Your task to perform on an android device: open app "NewsBreak: Local News & Alerts" Image 0: 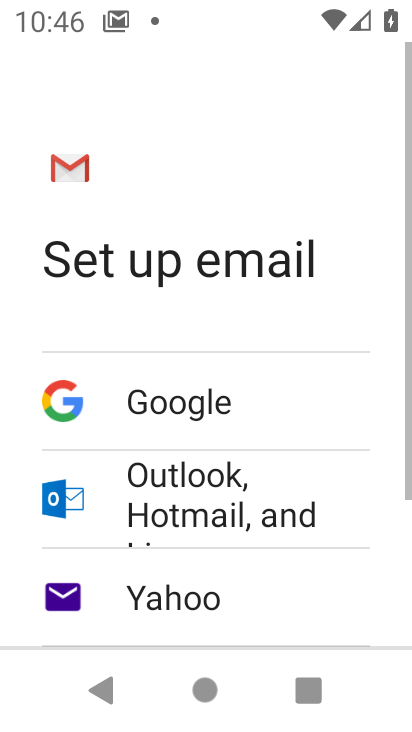
Step 0: press home button
Your task to perform on an android device: open app "NewsBreak: Local News & Alerts" Image 1: 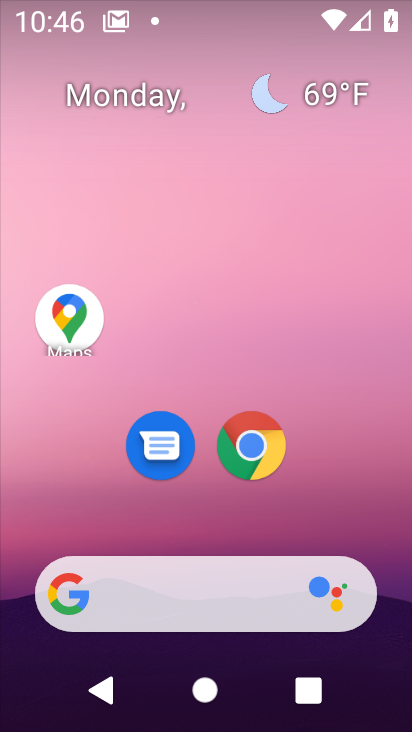
Step 1: drag from (181, 647) to (249, 85)
Your task to perform on an android device: open app "NewsBreak: Local News & Alerts" Image 2: 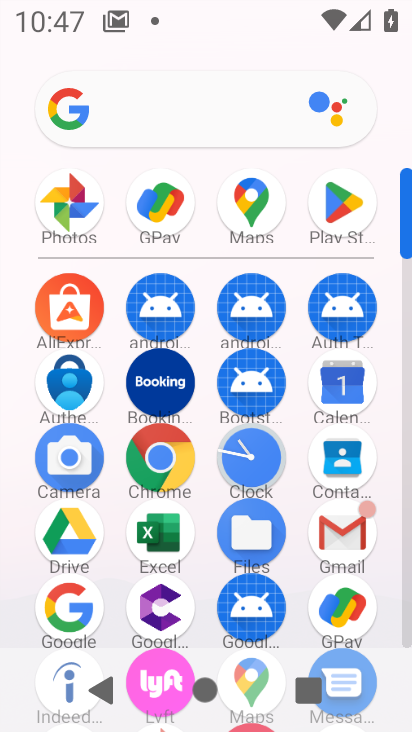
Step 2: click (350, 202)
Your task to perform on an android device: open app "NewsBreak: Local News & Alerts" Image 3: 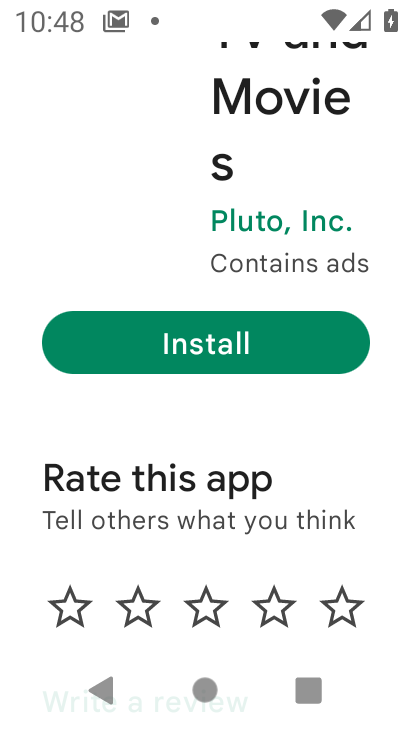
Step 3: drag from (117, 283) to (167, 704)
Your task to perform on an android device: open app "NewsBreak: Local News & Alerts" Image 4: 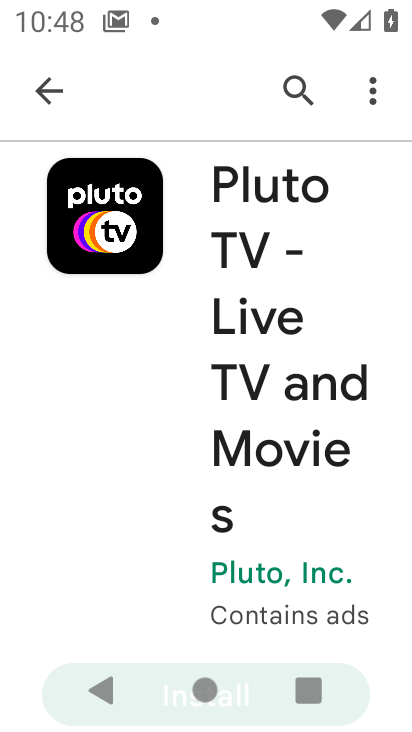
Step 4: click (66, 94)
Your task to perform on an android device: open app "NewsBreak: Local News & Alerts" Image 5: 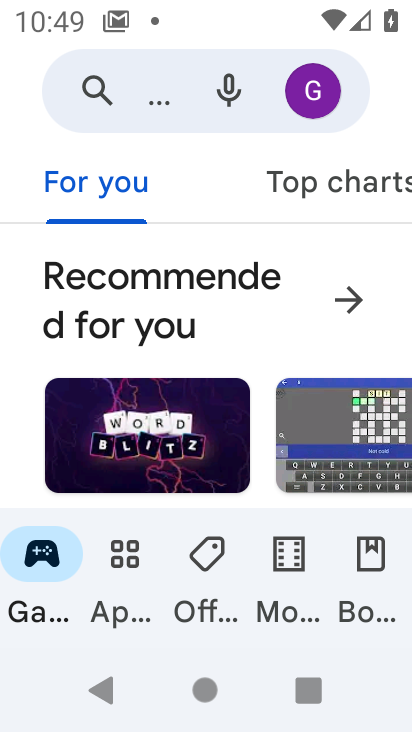
Step 5: click (97, 92)
Your task to perform on an android device: open app "NewsBreak: Local News & Alerts" Image 6: 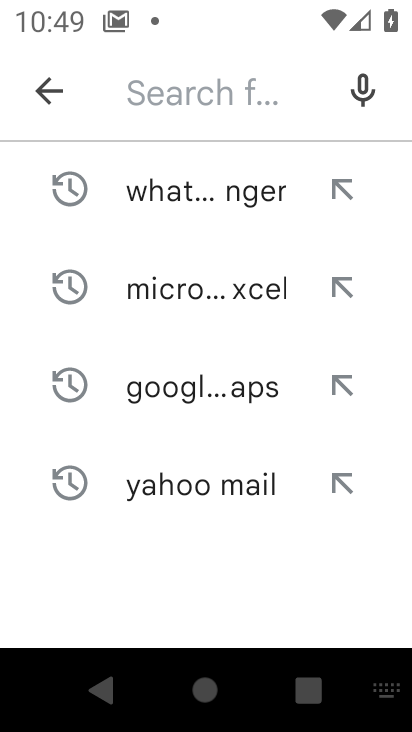
Step 6: type "NewsBreak: Local News & Alerts"
Your task to perform on an android device: open app "NewsBreak: Local News & Alerts" Image 7: 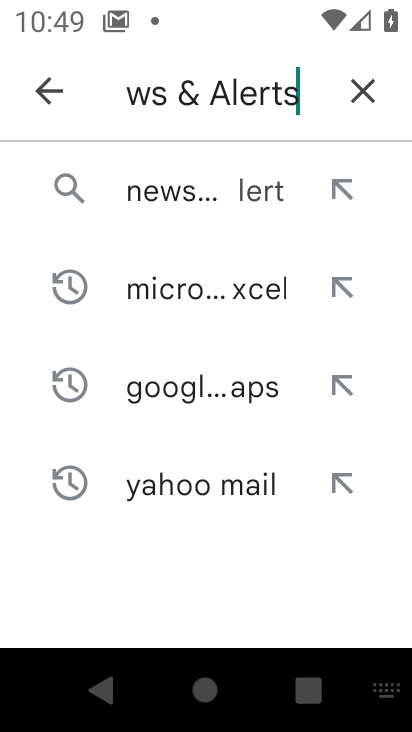
Step 7: type ""
Your task to perform on an android device: open app "NewsBreak: Local News & Alerts" Image 8: 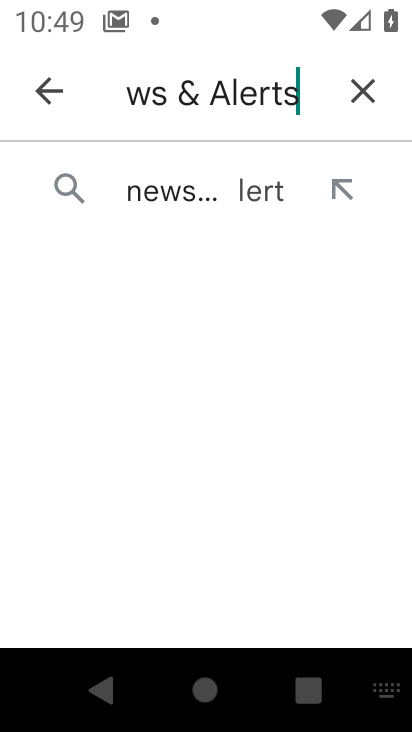
Step 8: click (138, 198)
Your task to perform on an android device: open app "NewsBreak: Local News & Alerts" Image 9: 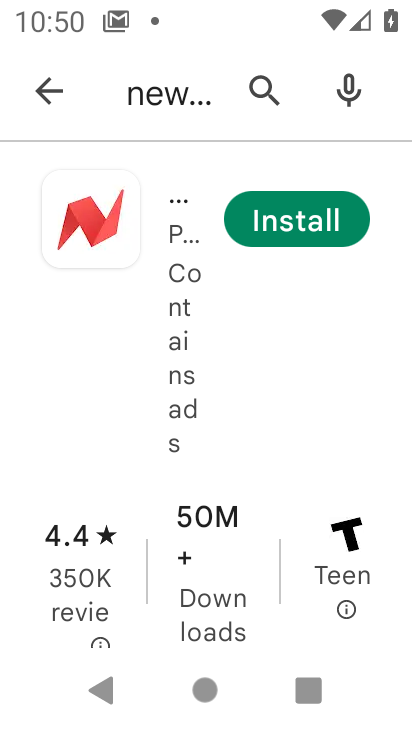
Step 9: task complete